Your task to perform on an android device: Open calendar and show me the third week of next month Image 0: 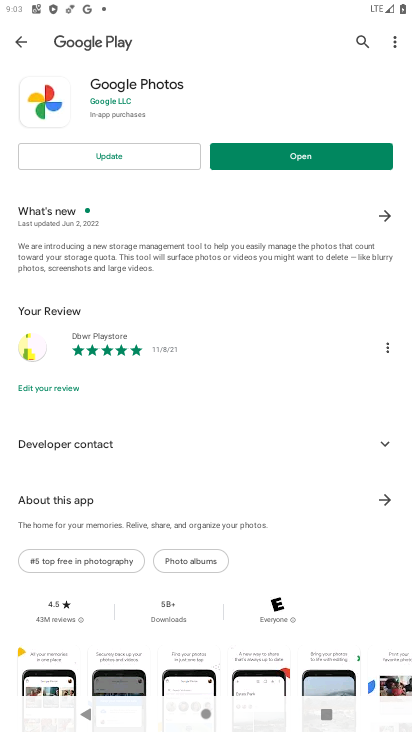
Step 0: press home button
Your task to perform on an android device: Open calendar and show me the third week of next month Image 1: 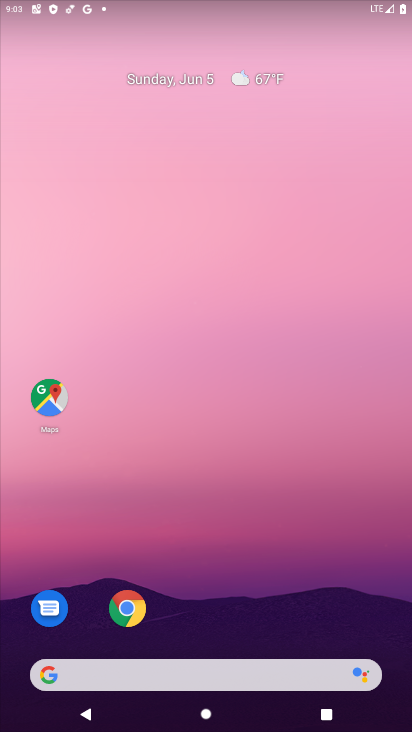
Step 1: drag from (71, 483) to (285, 82)
Your task to perform on an android device: Open calendar and show me the third week of next month Image 2: 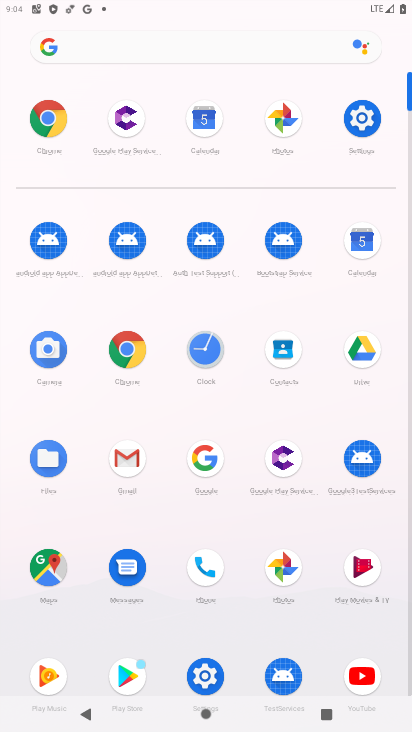
Step 2: click (355, 245)
Your task to perform on an android device: Open calendar and show me the third week of next month Image 3: 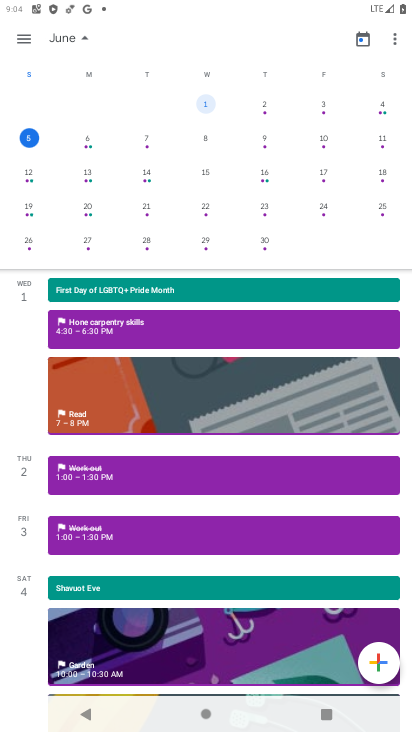
Step 3: task complete